Your task to perform on an android device: turn off wifi Image 0: 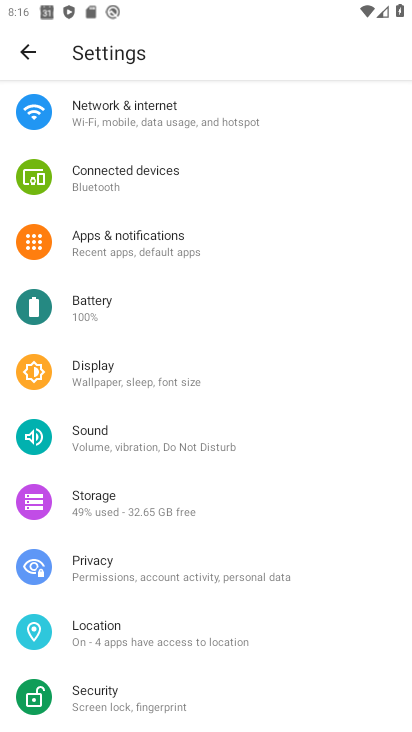
Step 0: drag from (223, 282) to (182, 598)
Your task to perform on an android device: turn off wifi Image 1: 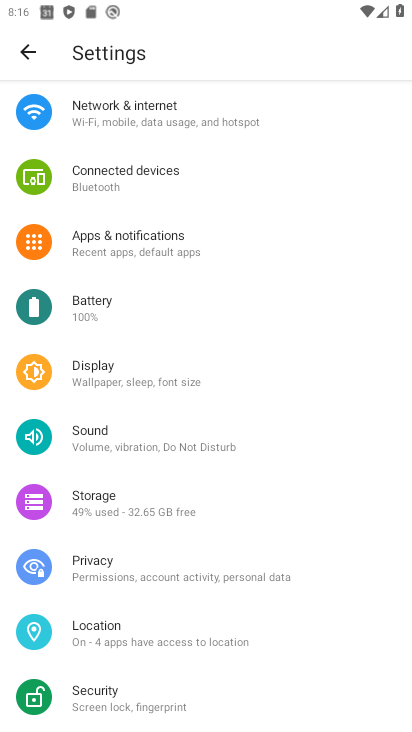
Step 1: drag from (206, 333) to (214, 658)
Your task to perform on an android device: turn off wifi Image 2: 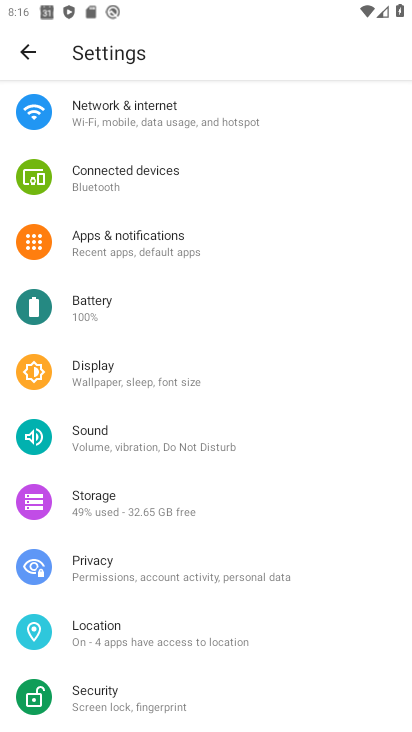
Step 2: drag from (238, 337) to (183, 681)
Your task to perform on an android device: turn off wifi Image 3: 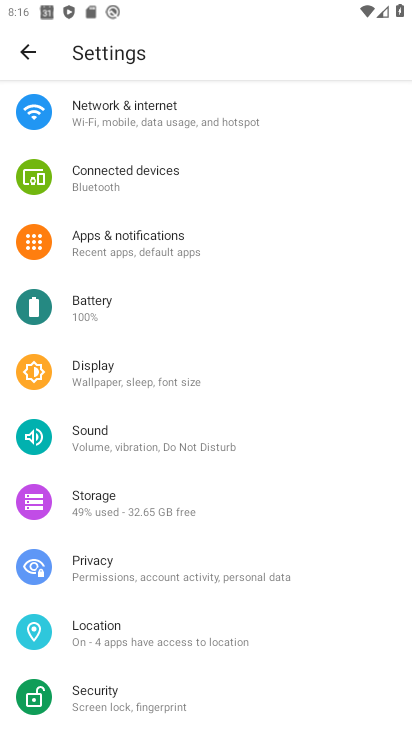
Step 3: drag from (164, 308) to (127, 575)
Your task to perform on an android device: turn off wifi Image 4: 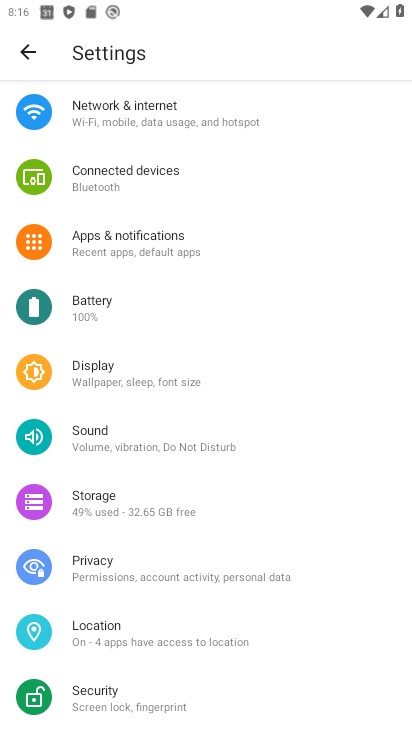
Step 4: drag from (124, 278) to (116, 647)
Your task to perform on an android device: turn off wifi Image 5: 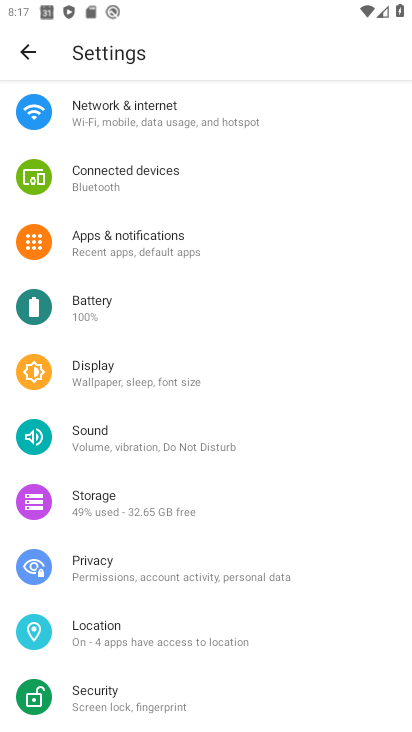
Step 5: click (176, 111)
Your task to perform on an android device: turn off wifi Image 6: 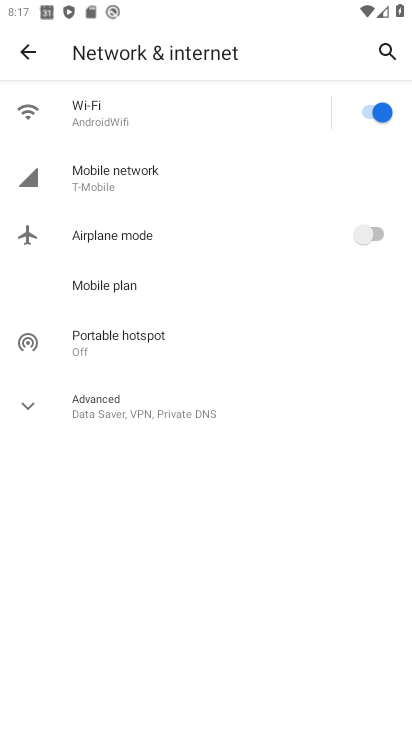
Step 6: click (373, 119)
Your task to perform on an android device: turn off wifi Image 7: 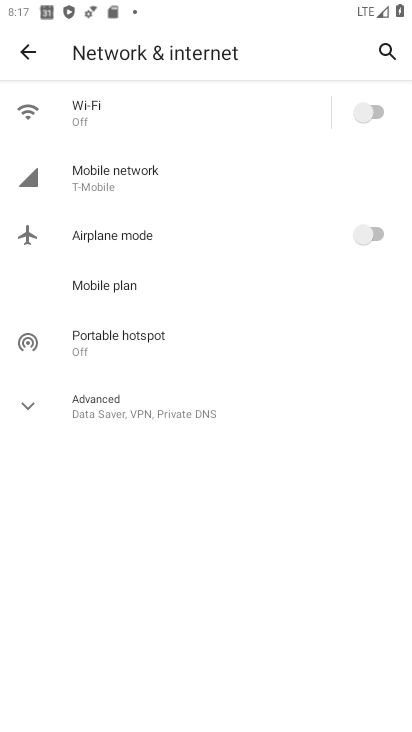
Step 7: task complete